Your task to perform on an android device: What's on my calendar today? Image 0: 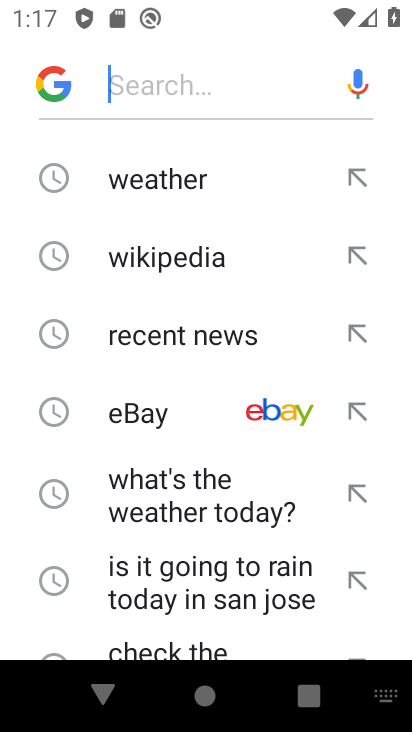
Step 0: press back button
Your task to perform on an android device: What's on my calendar today? Image 1: 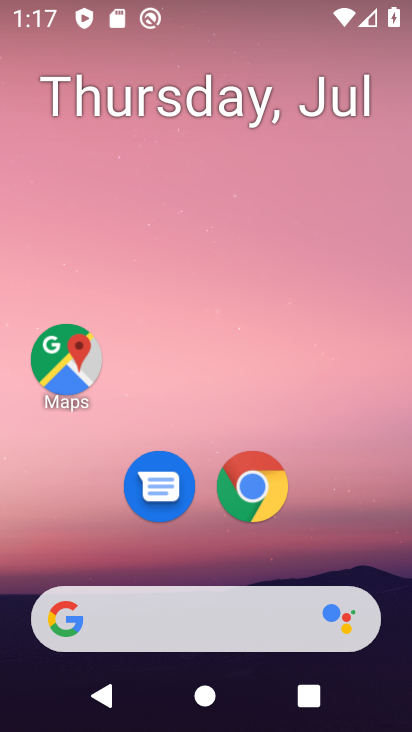
Step 1: drag from (216, 551) to (269, 16)
Your task to perform on an android device: What's on my calendar today? Image 2: 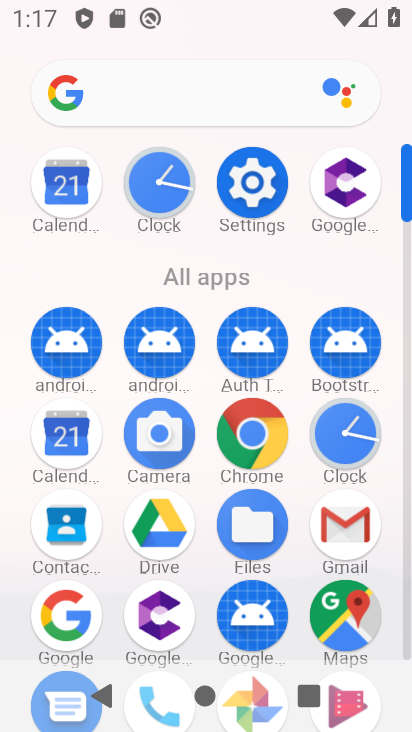
Step 2: click (63, 180)
Your task to perform on an android device: What's on my calendar today? Image 3: 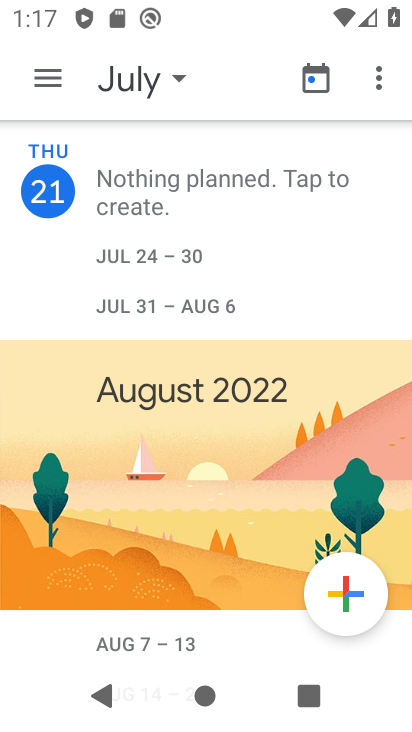
Step 3: task complete